Your task to perform on an android device: Turn on the flashlight Image 0: 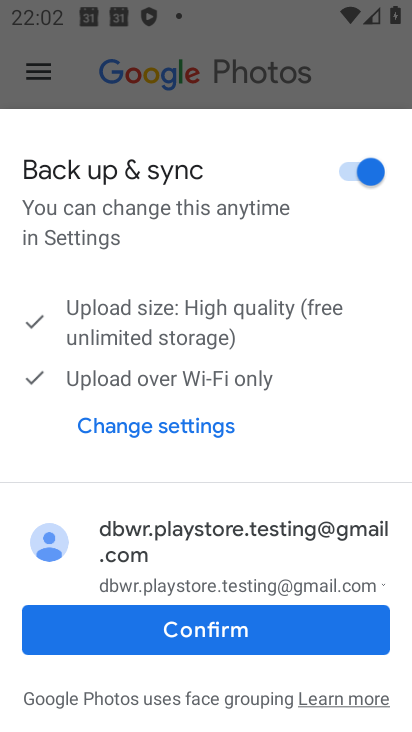
Step 0: press home button
Your task to perform on an android device: Turn on the flashlight Image 1: 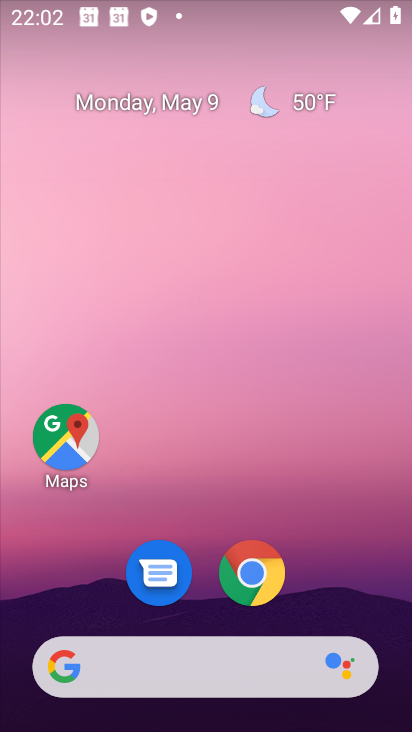
Step 1: task complete